Your task to perform on an android device: see sites visited before in the chrome app Image 0: 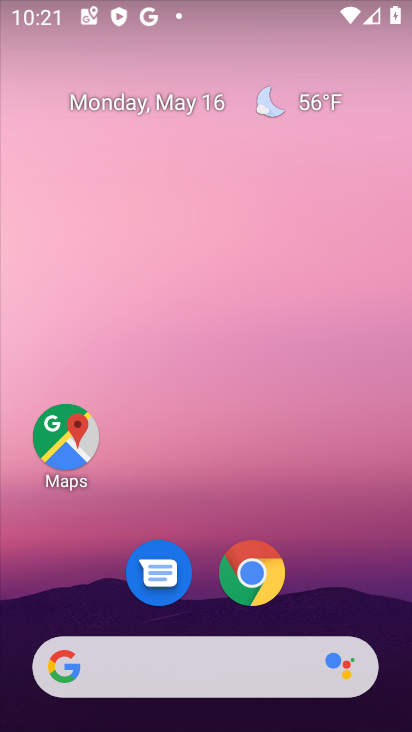
Step 0: click (272, 579)
Your task to perform on an android device: see sites visited before in the chrome app Image 1: 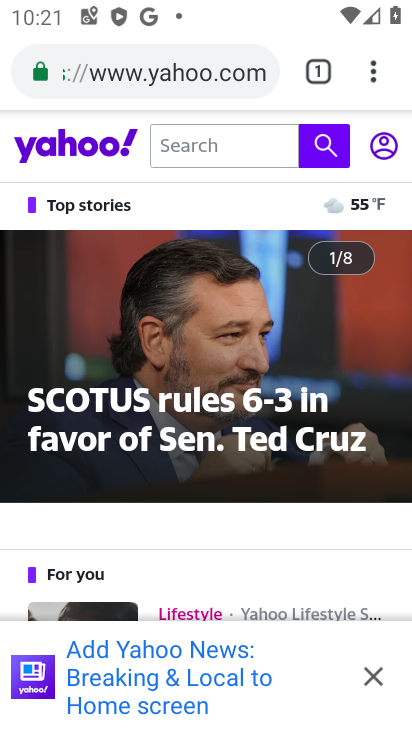
Step 1: click (380, 89)
Your task to perform on an android device: see sites visited before in the chrome app Image 2: 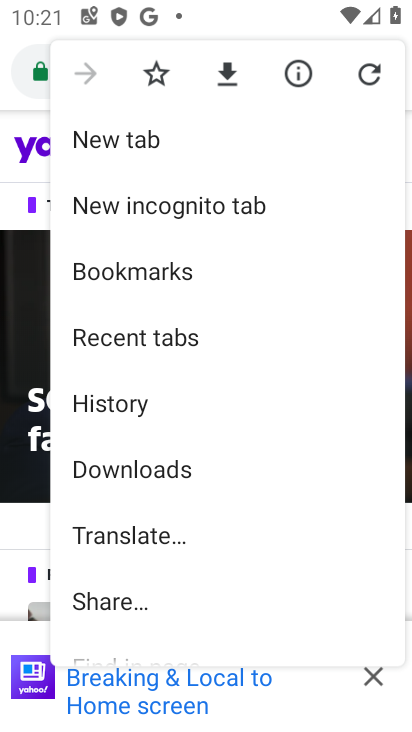
Step 2: click (153, 409)
Your task to perform on an android device: see sites visited before in the chrome app Image 3: 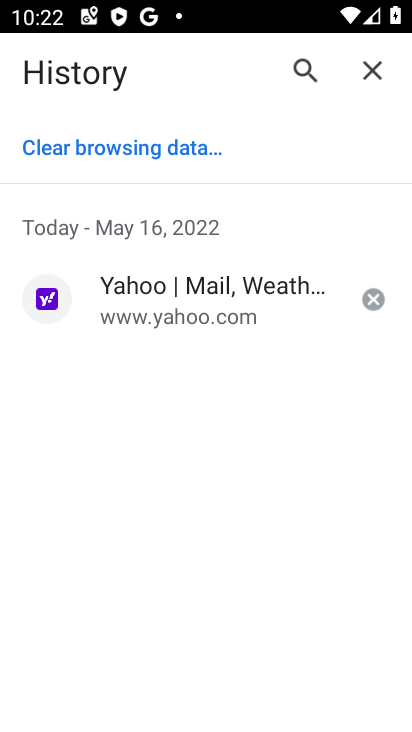
Step 3: task complete